Your task to perform on an android device: Show me popular games on the Play Store Image 0: 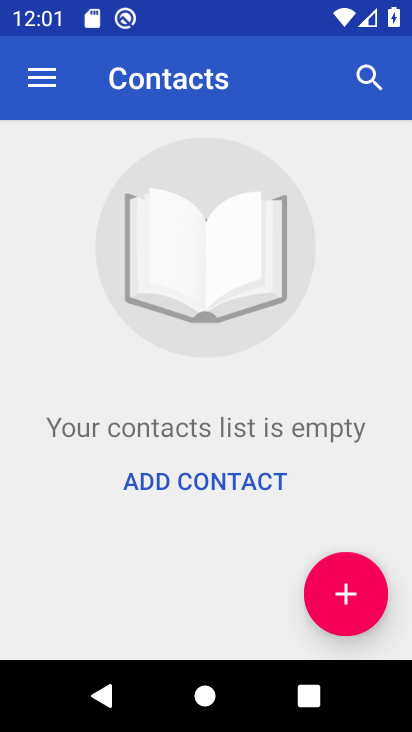
Step 0: press home button
Your task to perform on an android device: Show me popular games on the Play Store Image 1: 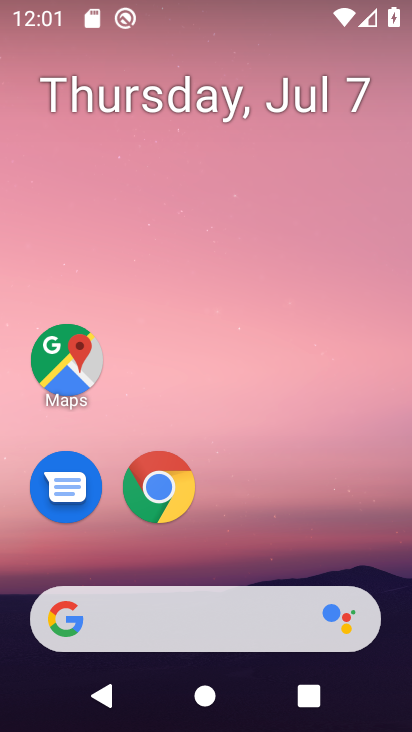
Step 1: drag from (358, 540) to (389, 171)
Your task to perform on an android device: Show me popular games on the Play Store Image 2: 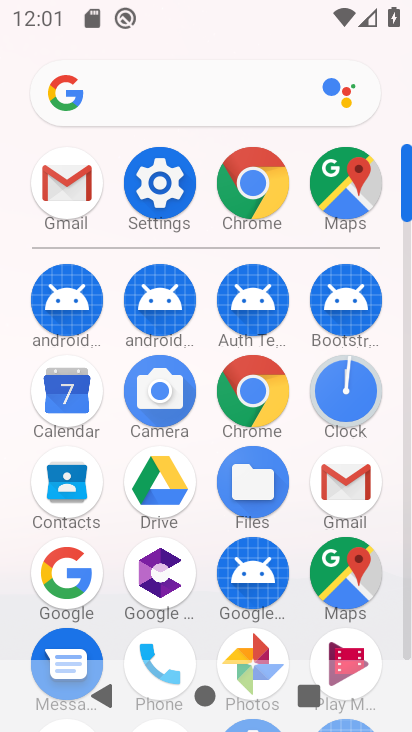
Step 2: drag from (383, 530) to (396, 270)
Your task to perform on an android device: Show me popular games on the Play Store Image 3: 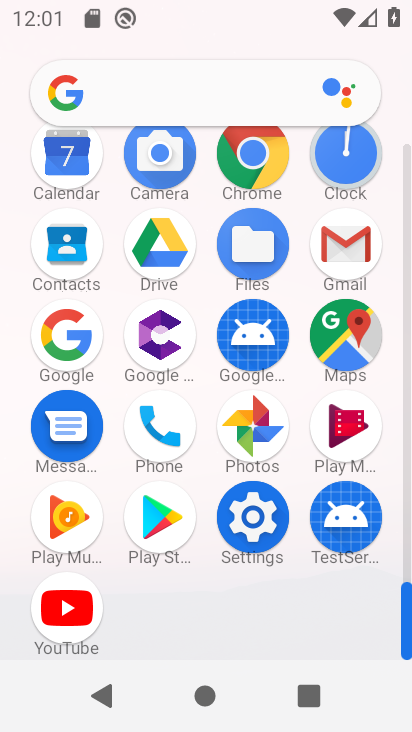
Step 3: click (145, 532)
Your task to perform on an android device: Show me popular games on the Play Store Image 4: 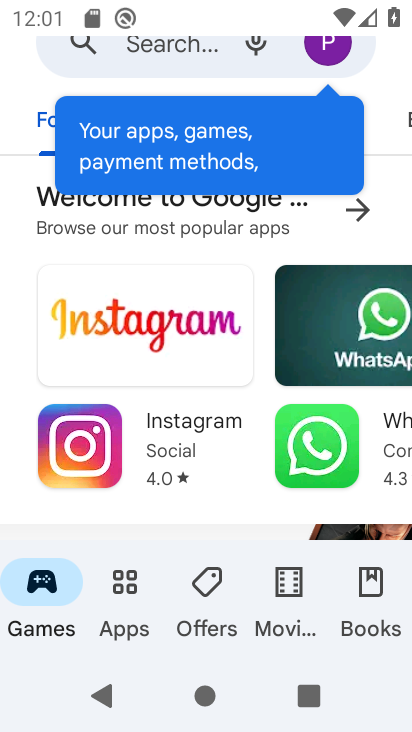
Step 4: task complete